Your task to perform on an android device: stop showing notifications on the lock screen Image 0: 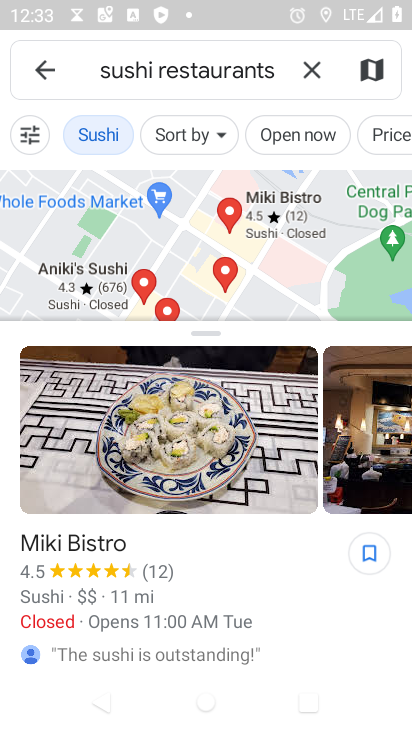
Step 0: press home button
Your task to perform on an android device: stop showing notifications on the lock screen Image 1: 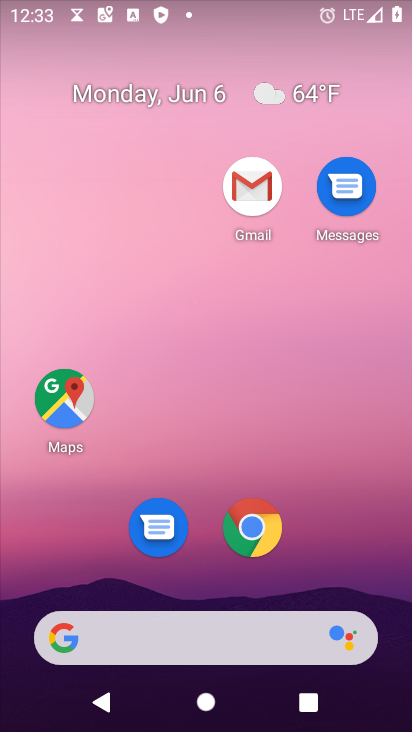
Step 1: drag from (306, 581) to (267, 45)
Your task to perform on an android device: stop showing notifications on the lock screen Image 2: 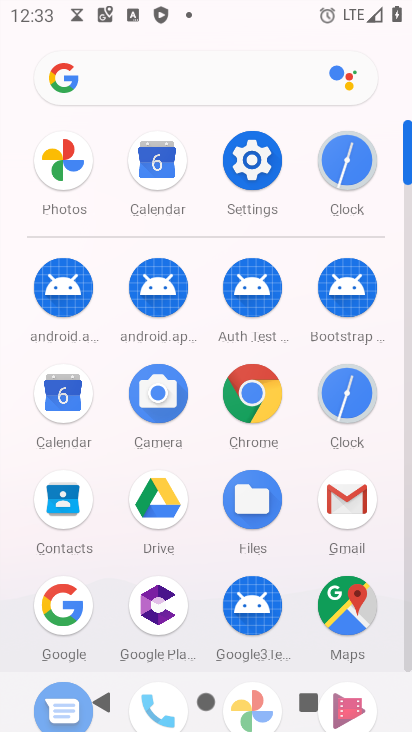
Step 2: click (242, 150)
Your task to perform on an android device: stop showing notifications on the lock screen Image 3: 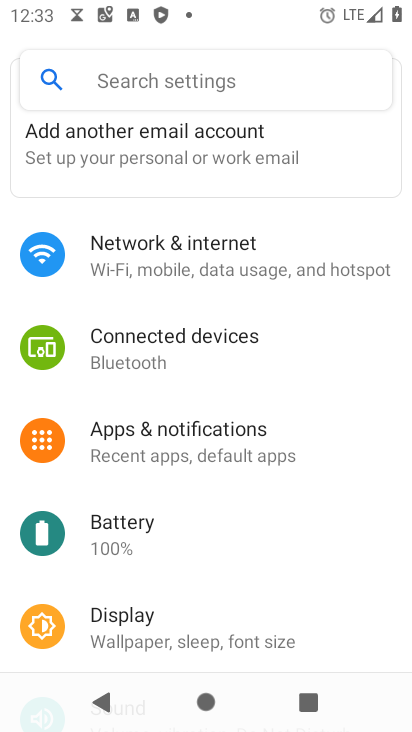
Step 3: click (196, 434)
Your task to perform on an android device: stop showing notifications on the lock screen Image 4: 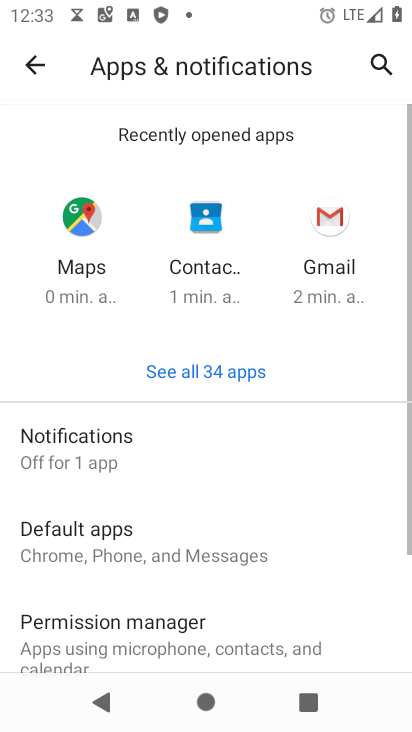
Step 4: click (108, 467)
Your task to perform on an android device: stop showing notifications on the lock screen Image 5: 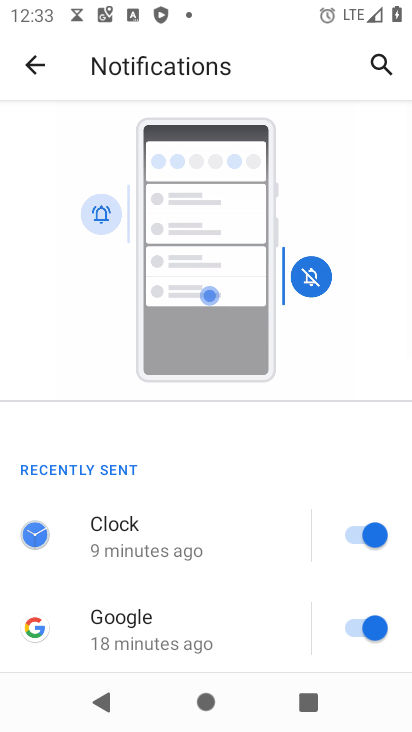
Step 5: drag from (190, 594) to (166, 36)
Your task to perform on an android device: stop showing notifications on the lock screen Image 6: 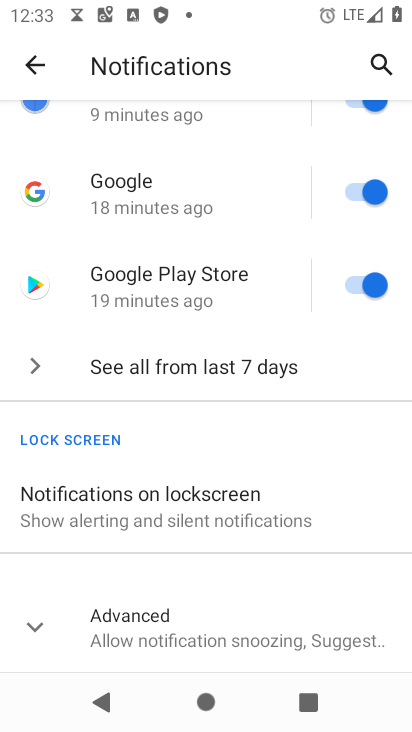
Step 6: click (204, 486)
Your task to perform on an android device: stop showing notifications on the lock screen Image 7: 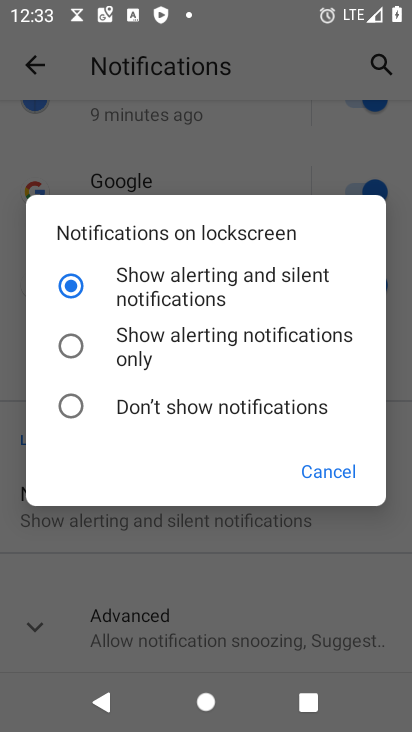
Step 7: click (75, 405)
Your task to perform on an android device: stop showing notifications on the lock screen Image 8: 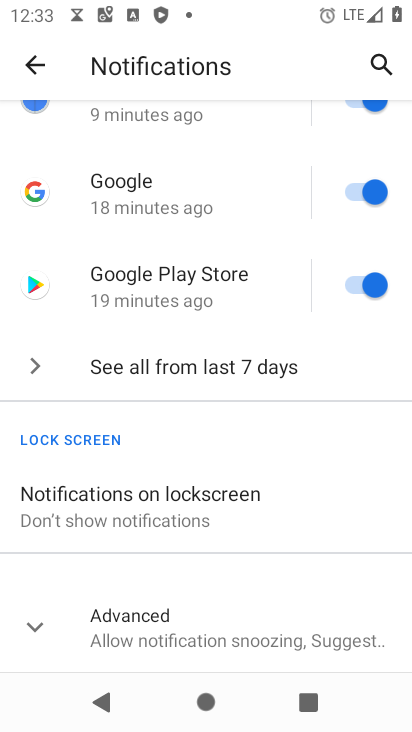
Step 8: task complete